Your task to perform on an android device: toggle priority inbox in the gmail app Image 0: 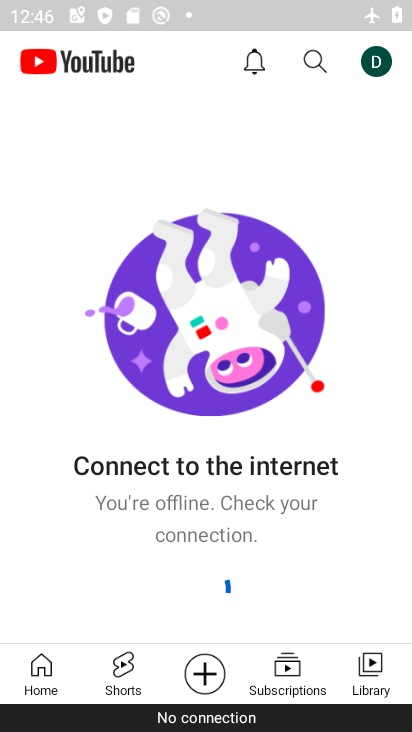
Step 0: press home button
Your task to perform on an android device: toggle priority inbox in the gmail app Image 1: 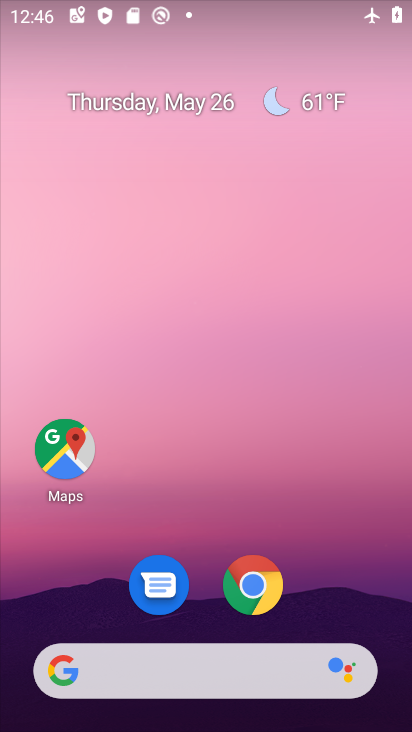
Step 1: drag from (311, 543) to (291, 85)
Your task to perform on an android device: toggle priority inbox in the gmail app Image 2: 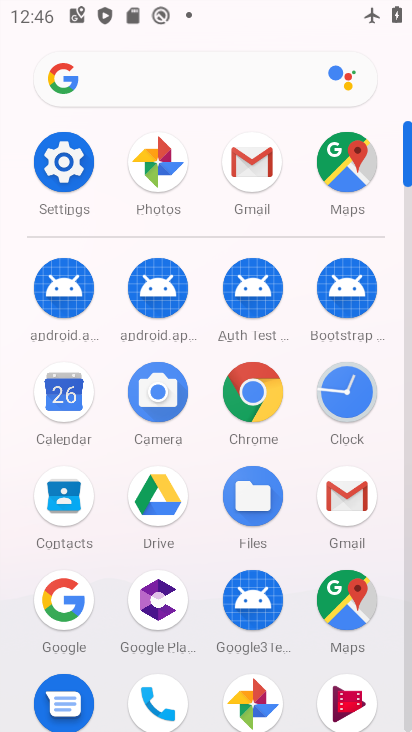
Step 2: click (264, 156)
Your task to perform on an android device: toggle priority inbox in the gmail app Image 3: 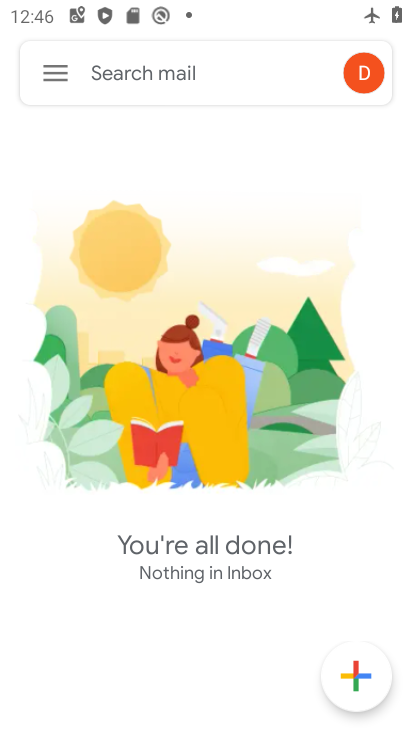
Step 3: click (55, 73)
Your task to perform on an android device: toggle priority inbox in the gmail app Image 4: 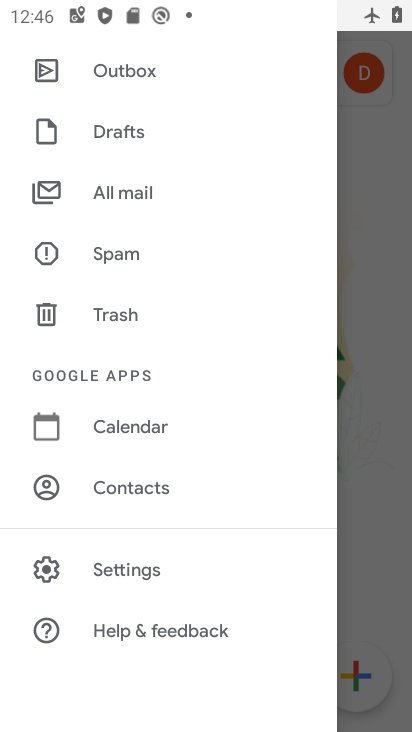
Step 4: click (132, 556)
Your task to perform on an android device: toggle priority inbox in the gmail app Image 5: 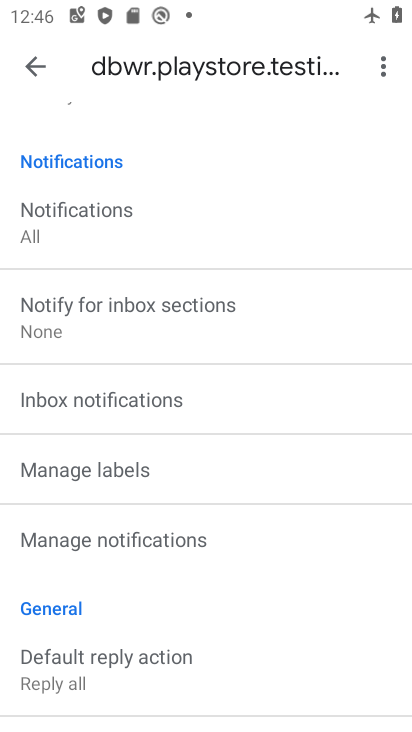
Step 5: drag from (179, 248) to (219, 639)
Your task to perform on an android device: toggle priority inbox in the gmail app Image 6: 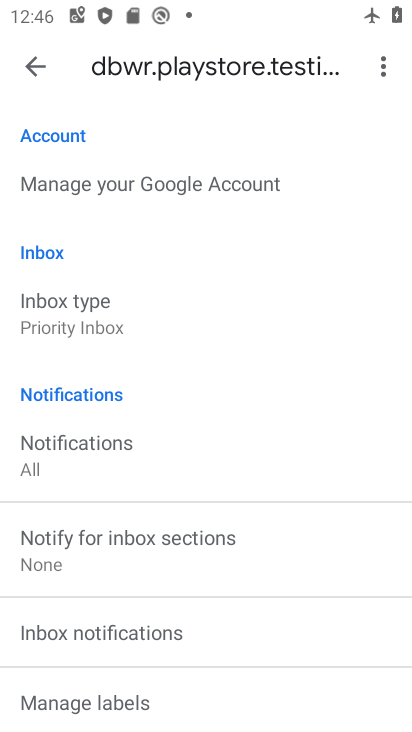
Step 6: drag from (205, 284) to (240, 561)
Your task to perform on an android device: toggle priority inbox in the gmail app Image 7: 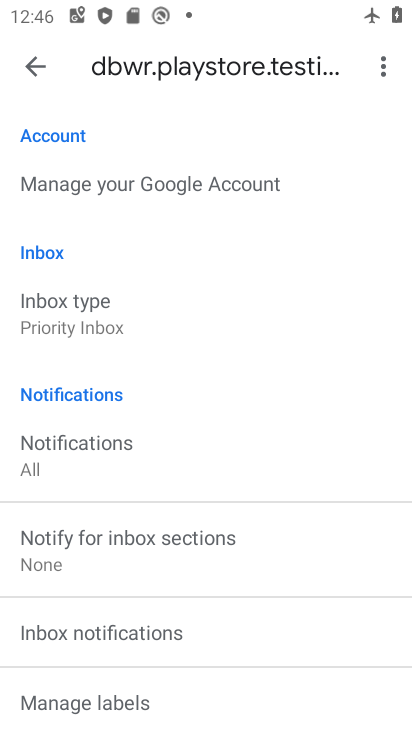
Step 7: click (104, 315)
Your task to perform on an android device: toggle priority inbox in the gmail app Image 8: 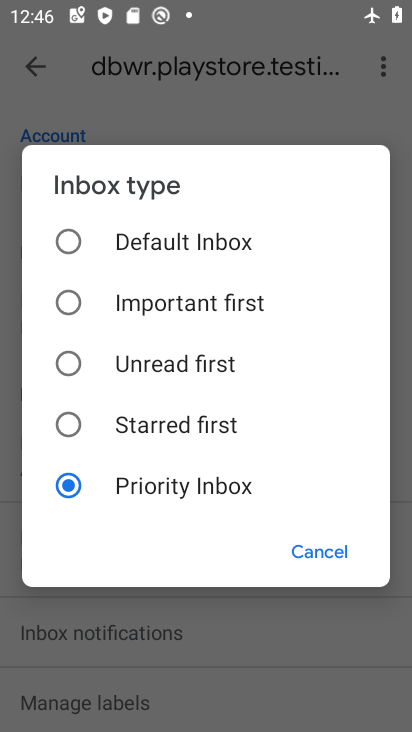
Step 8: click (63, 247)
Your task to perform on an android device: toggle priority inbox in the gmail app Image 9: 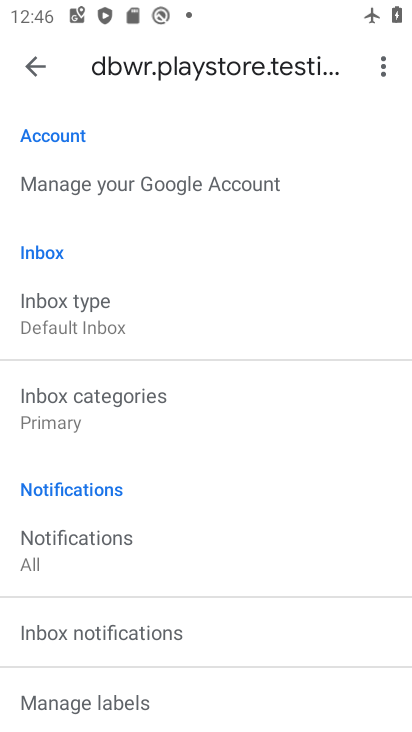
Step 9: task complete